Your task to perform on an android device: What's the weather going to be tomorrow? Image 0: 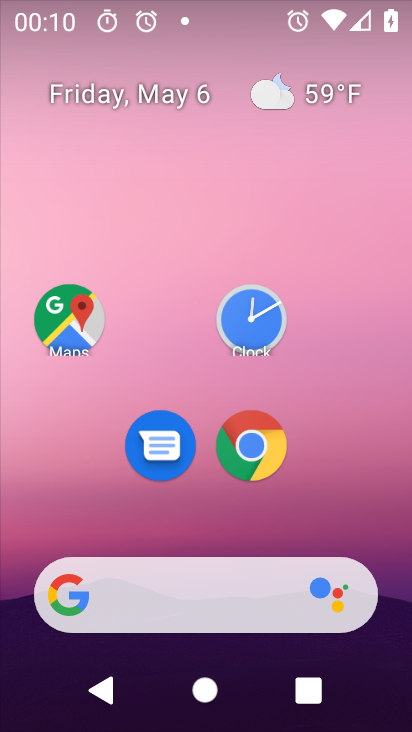
Step 0: click (300, 92)
Your task to perform on an android device: What's the weather going to be tomorrow? Image 1: 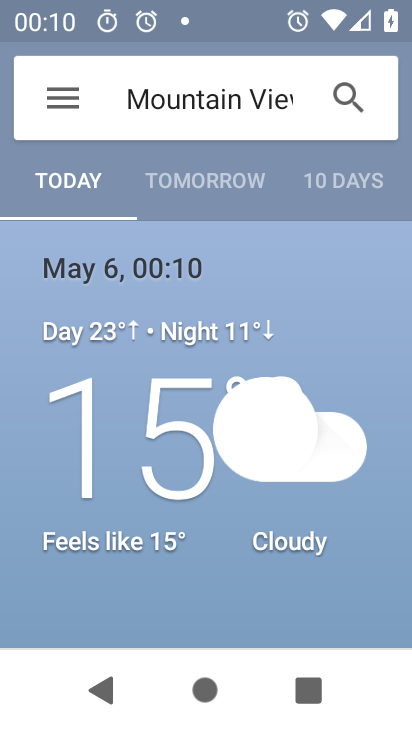
Step 1: click (199, 178)
Your task to perform on an android device: What's the weather going to be tomorrow? Image 2: 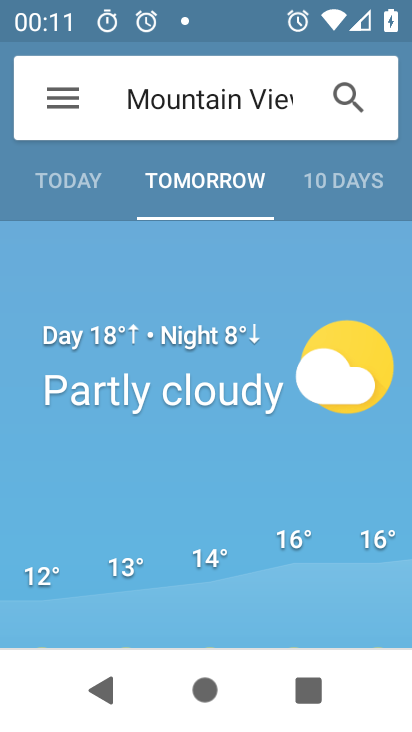
Step 2: task complete